Your task to perform on an android device: open chrome privacy settings Image 0: 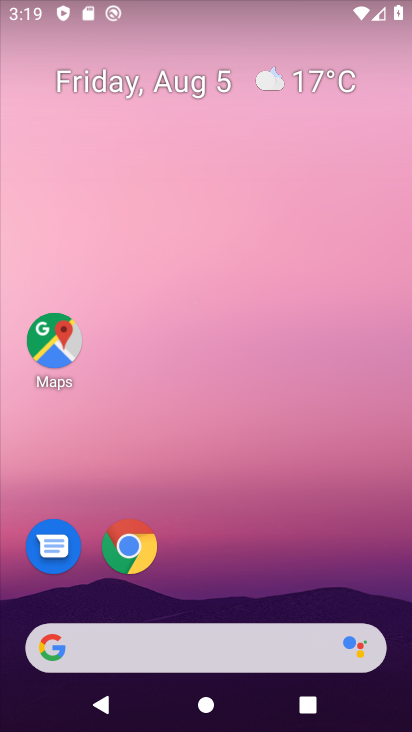
Step 0: drag from (304, 574) to (311, 134)
Your task to perform on an android device: open chrome privacy settings Image 1: 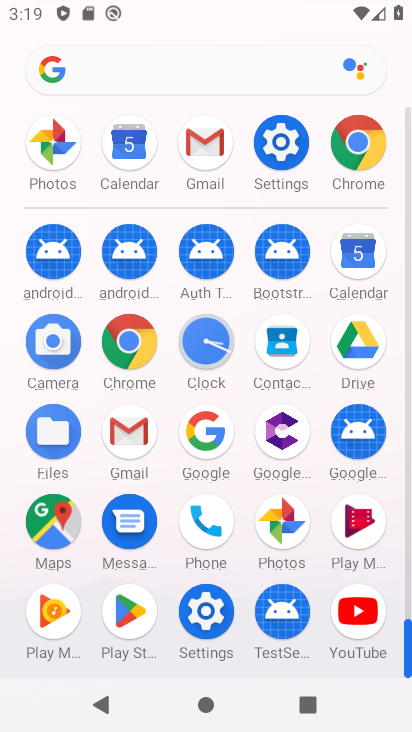
Step 1: click (125, 340)
Your task to perform on an android device: open chrome privacy settings Image 2: 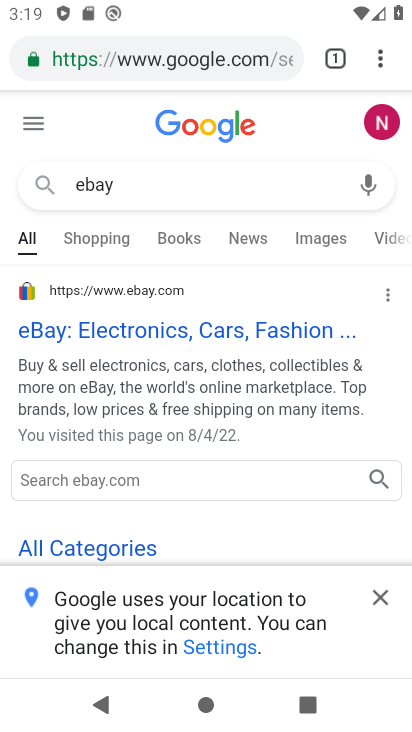
Step 2: click (381, 62)
Your task to perform on an android device: open chrome privacy settings Image 3: 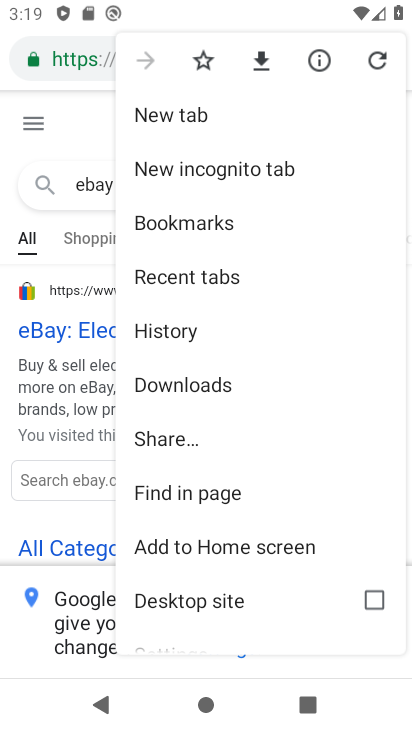
Step 3: drag from (317, 434) to (318, 271)
Your task to perform on an android device: open chrome privacy settings Image 4: 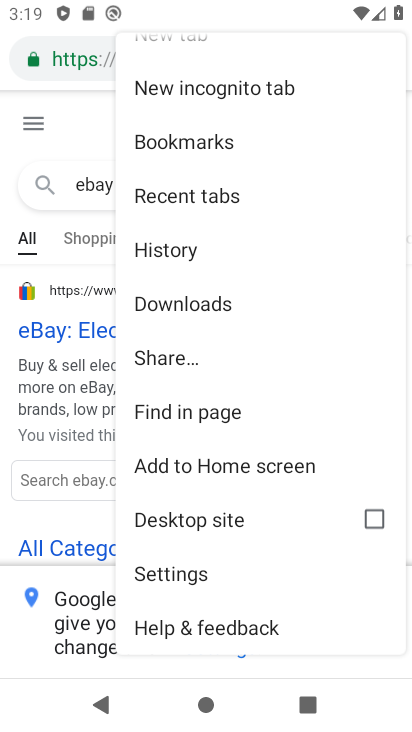
Step 4: click (190, 574)
Your task to perform on an android device: open chrome privacy settings Image 5: 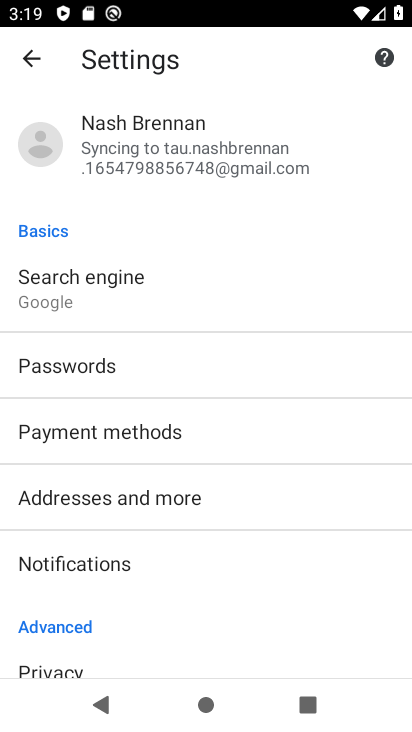
Step 5: drag from (274, 547) to (280, 433)
Your task to perform on an android device: open chrome privacy settings Image 6: 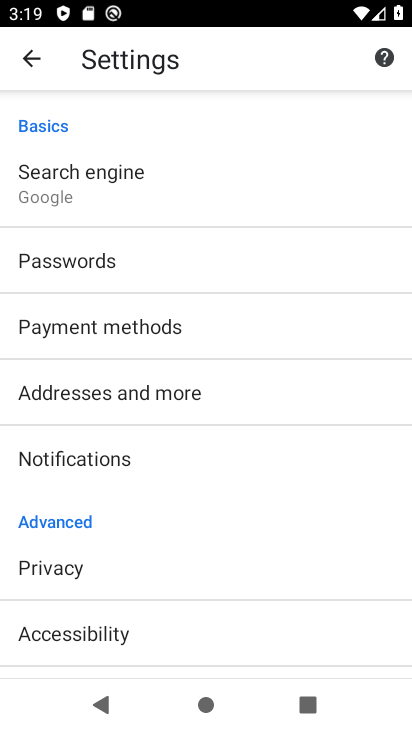
Step 6: click (291, 561)
Your task to perform on an android device: open chrome privacy settings Image 7: 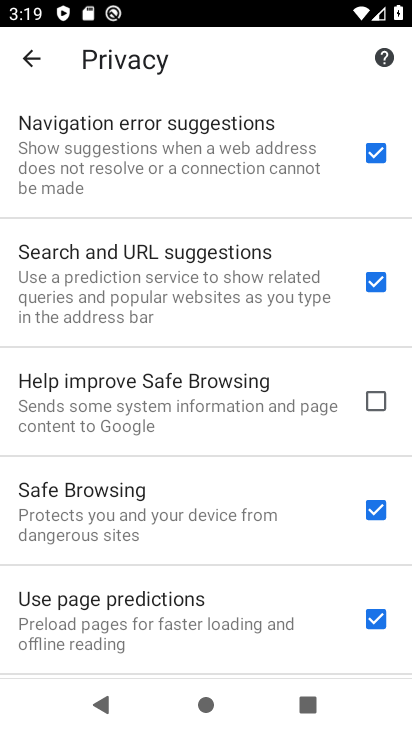
Step 7: task complete